Your task to perform on an android device: Check the news Image 0: 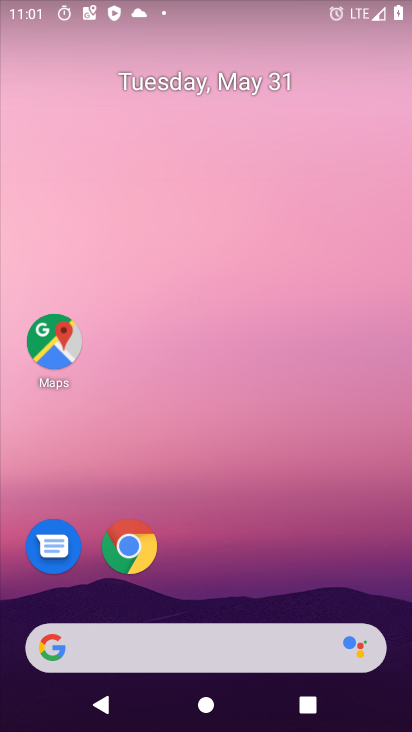
Step 0: drag from (222, 498) to (222, 160)
Your task to perform on an android device: Check the news Image 1: 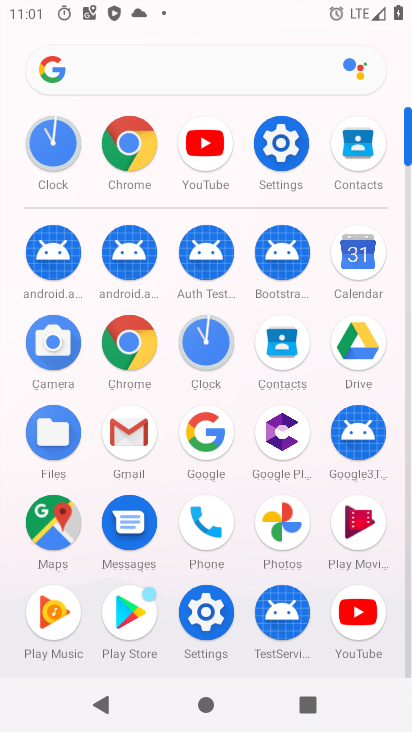
Step 1: click (203, 51)
Your task to perform on an android device: Check the news Image 2: 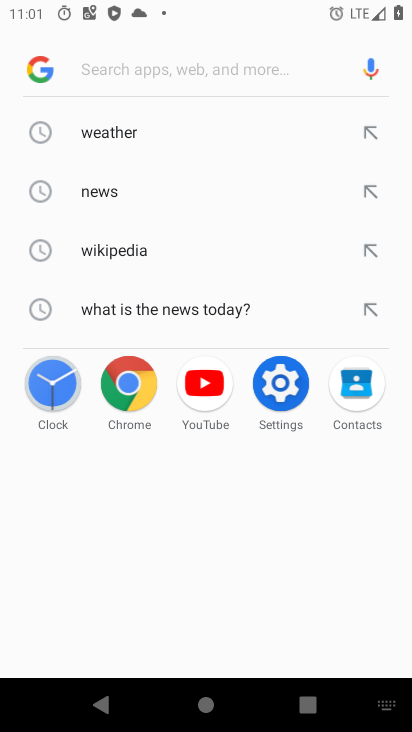
Step 2: click (148, 186)
Your task to perform on an android device: Check the news Image 3: 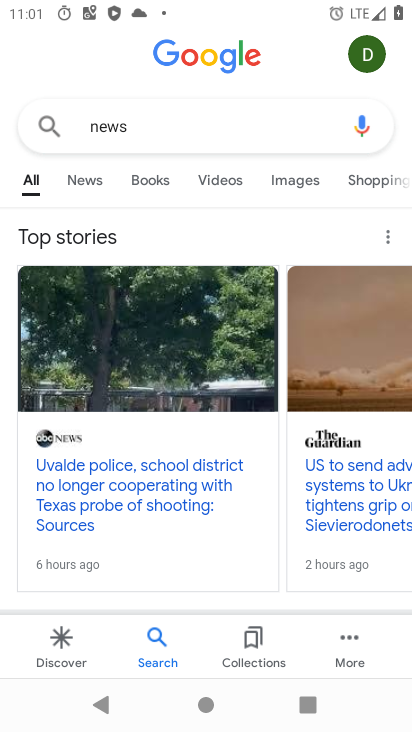
Step 3: task complete